Your task to perform on an android device: turn off location Image 0: 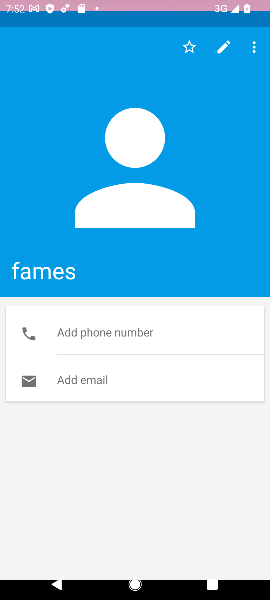
Step 0: click (216, 245)
Your task to perform on an android device: turn off location Image 1: 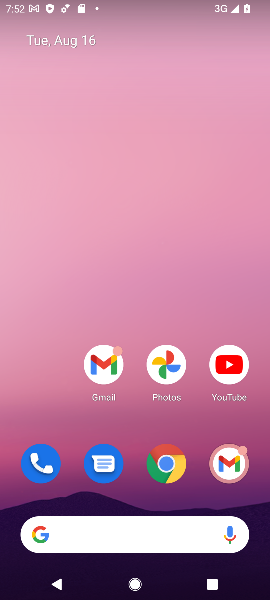
Step 1: drag from (116, 495) to (109, 161)
Your task to perform on an android device: turn off location Image 2: 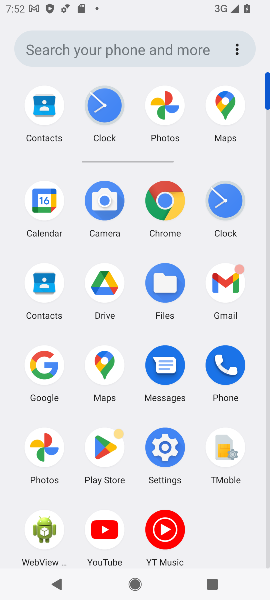
Step 2: click (163, 464)
Your task to perform on an android device: turn off location Image 3: 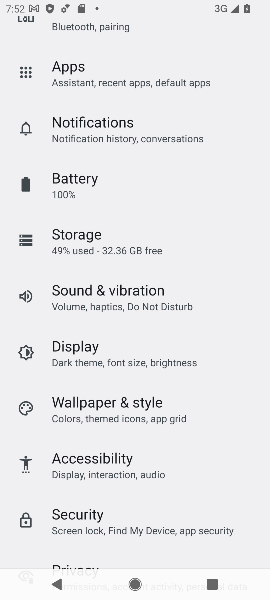
Step 3: drag from (98, 513) to (123, 365)
Your task to perform on an android device: turn off location Image 4: 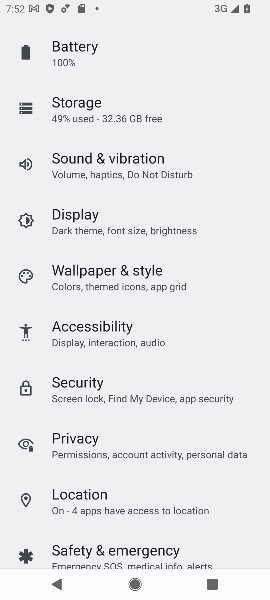
Step 4: click (99, 500)
Your task to perform on an android device: turn off location Image 5: 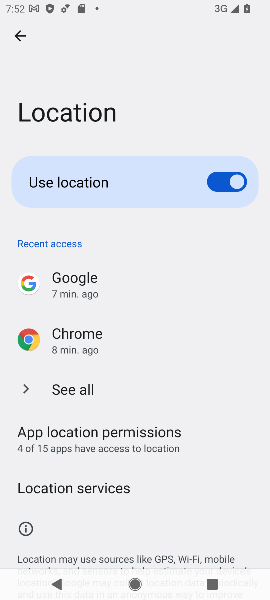
Step 5: click (198, 184)
Your task to perform on an android device: turn off location Image 6: 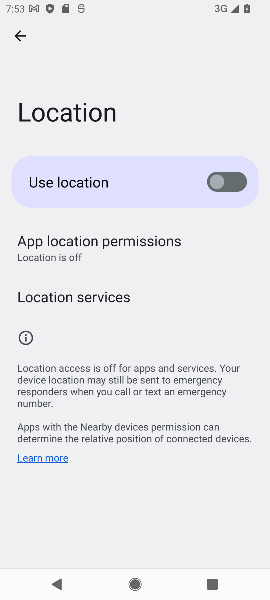
Step 6: task complete